Your task to perform on an android device: set the timer Image 0: 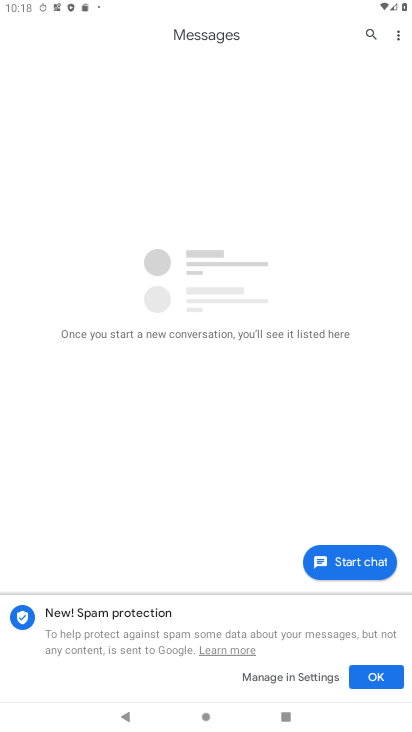
Step 0: click (130, 625)
Your task to perform on an android device: set the timer Image 1: 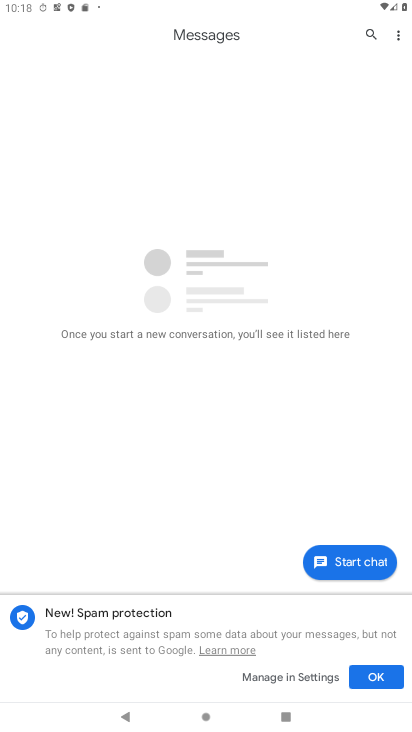
Step 1: press home button
Your task to perform on an android device: set the timer Image 2: 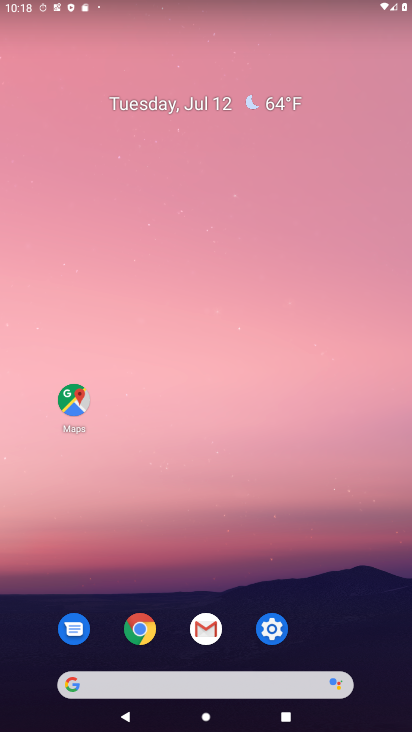
Step 2: drag from (225, 699) to (326, 156)
Your task to perform on an android device: set the timer Image 3: 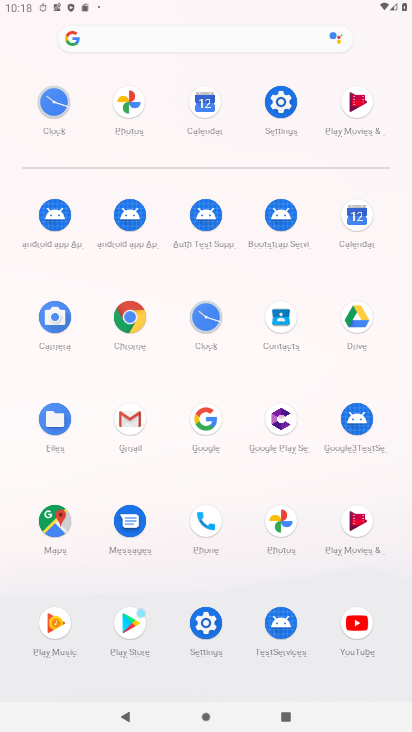
Step 3: click (193, 309)
Your task to perform on an android device: set the timer Image 4: 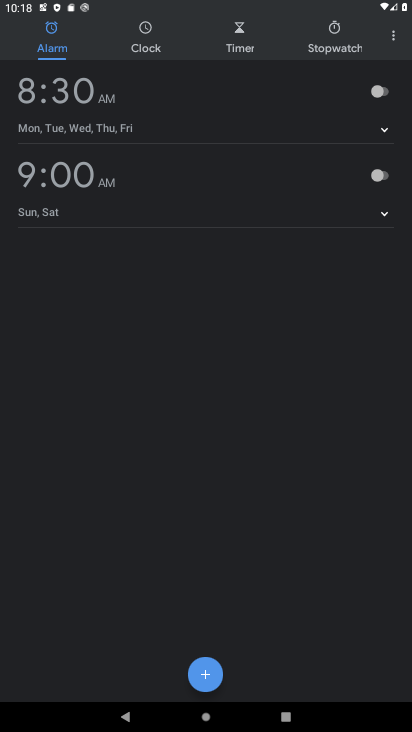
Step 4: click (239, 37)
Your task to perform on an android device: set the timer Image 5: 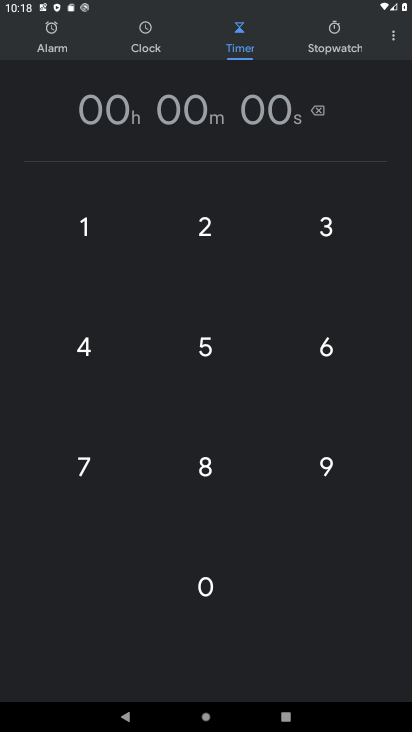
Step 5: click (214, 233)
Your task to perform on an android device: set the timer Image 6: 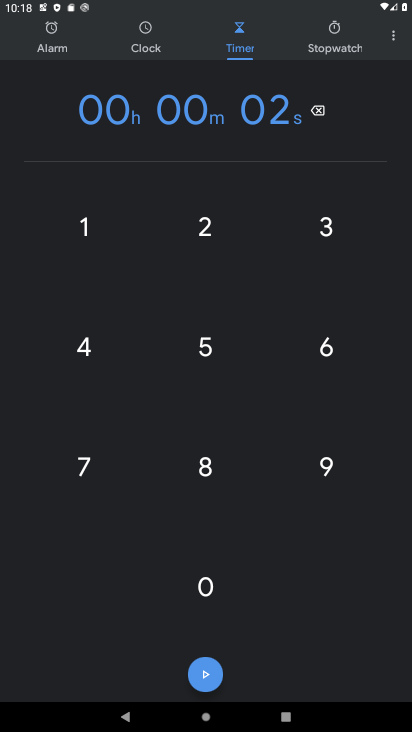
Step 6: click (190, 338)
Your task to perform on an android device: set the timer Image 7: 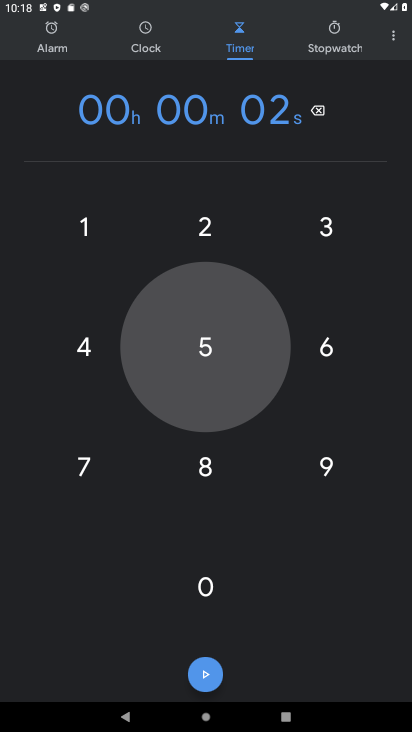
Step 7: click (263, 324)
Your task to perform on an android device: set the timer Image 8: 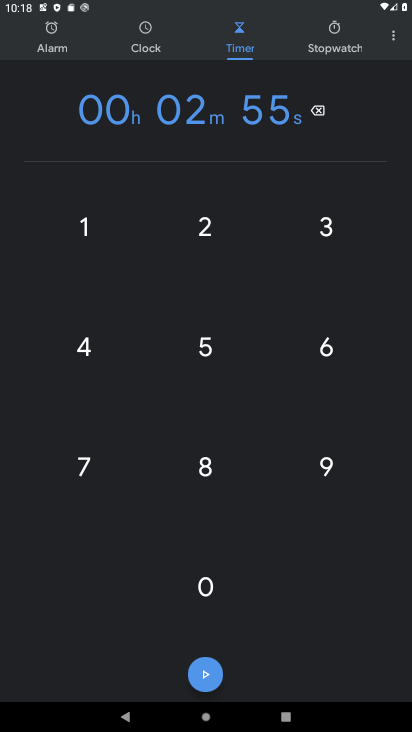
Step 8: click (52, 398)
Your task to perform on an android device: set the timer Image 9: 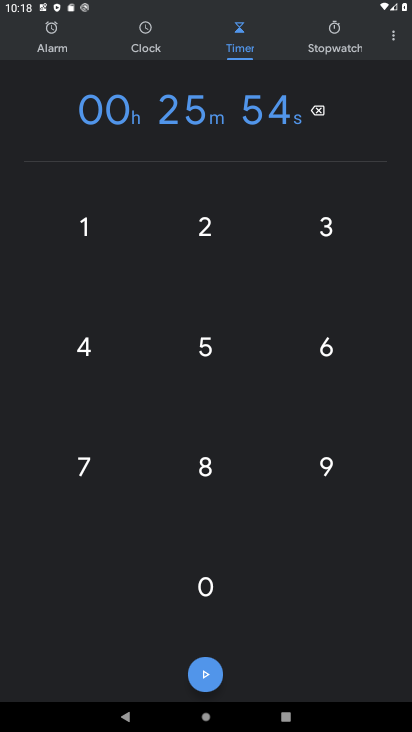
Step 9: click (210, 212)
Your task to perform on an android device: set the timer Image 10: 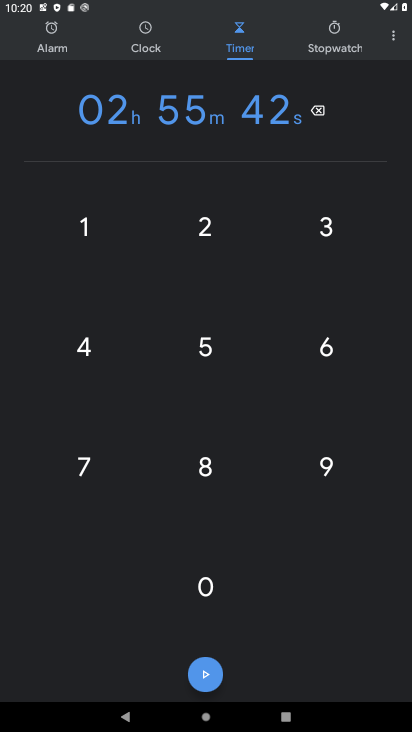
Step 10: task complete